Your task to perform on an android device: make emails show in primary in the gmail app Image 0: 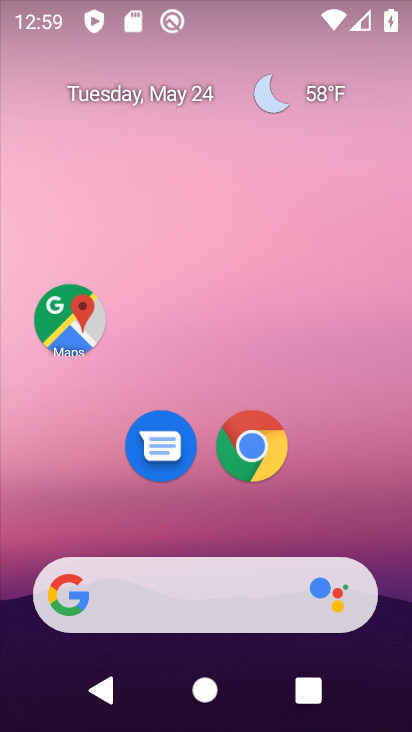
Step 0: drag from (230, 574) to (213, 243)
Your task to perform on an android device: make emails show in primary in the gmail app Image 1: 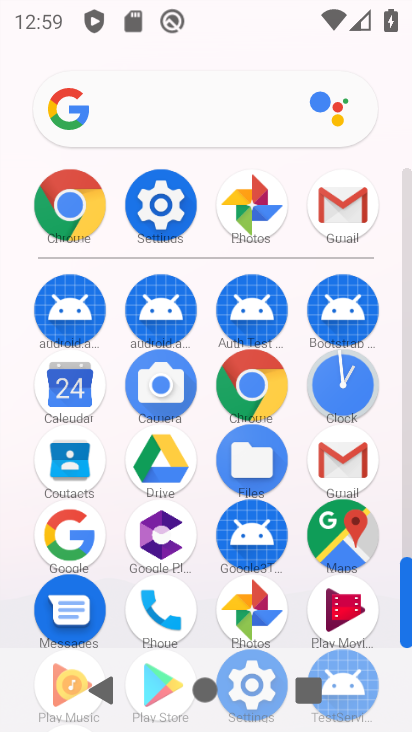
Step 1: click (360, 222)
Your task to perform on an android device: make emails show in primary in the gmail app Image 2: 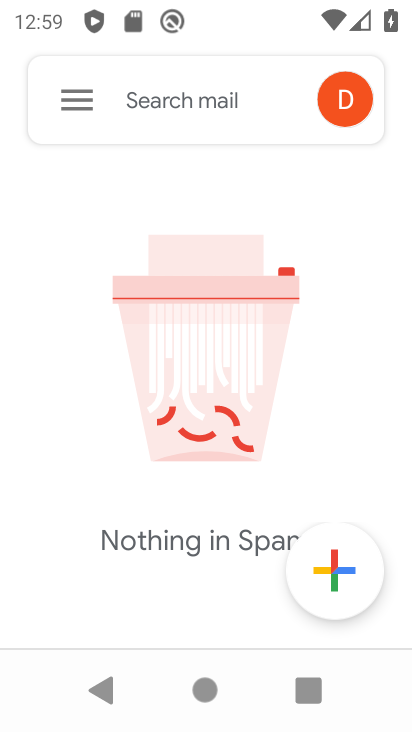
Step 2: click (72, 110)
Your task to perform on an android device: make emails show in primary in the gmail app Image 3: 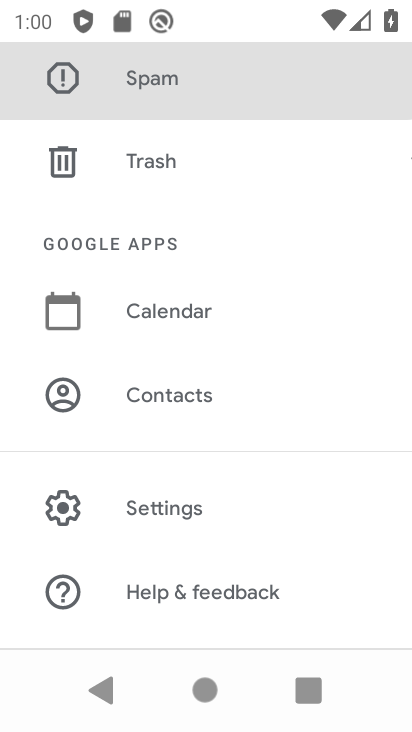
Step 3: click (176, 517)
Your task to perform on an android device: make emails show in primary in the gmail app Image 4: 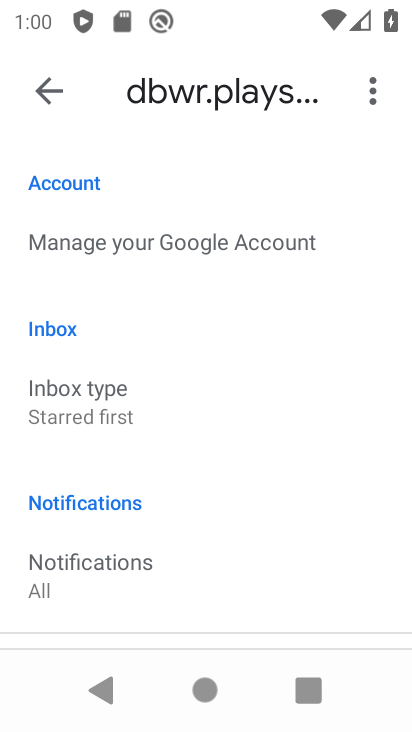
Step 4: task complete